Your task to perform on an android device: open sync settings in chrome Image 0: 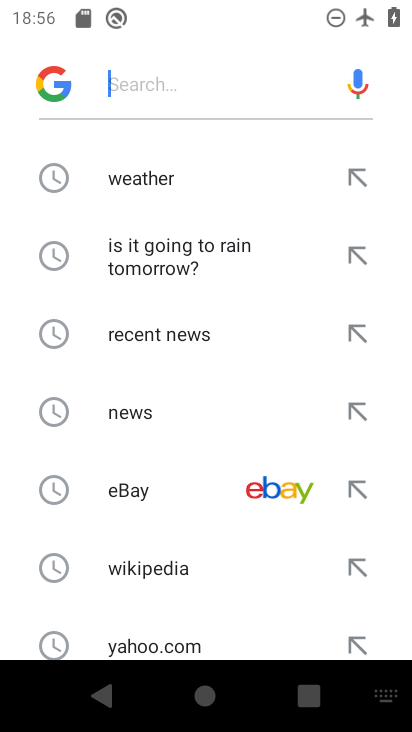
Step 0: press home button
Your task to perform on an android device: open sync settings in chrome Image 1: 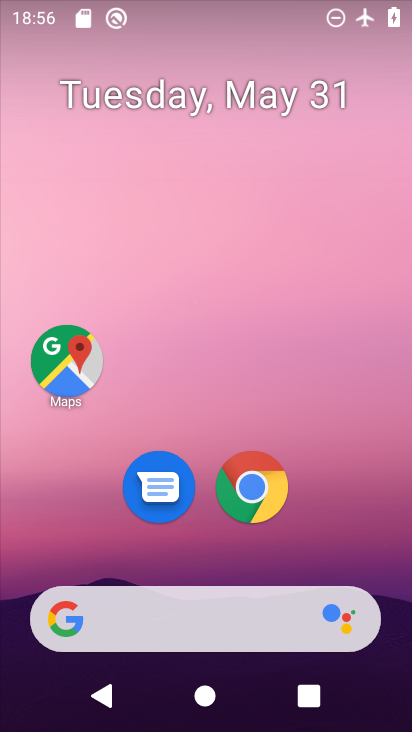
Step 1: click (256, 491)
Your task to perform on an android device: open sync settings in chrome Image 2: 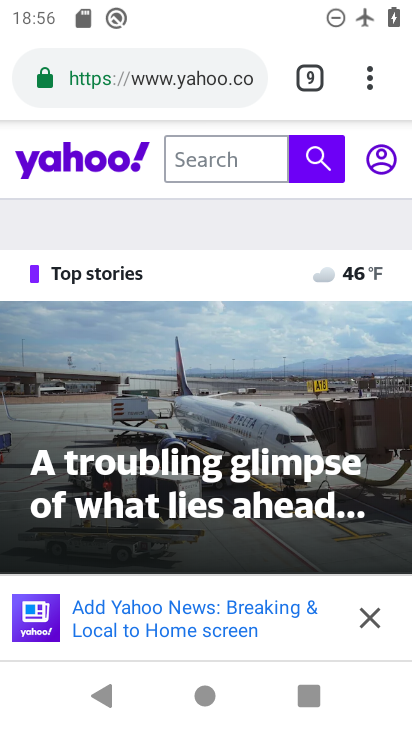
Step 2: click (366, 73)
Your task to perform on an android device: open sync settings in chrome Image 3: 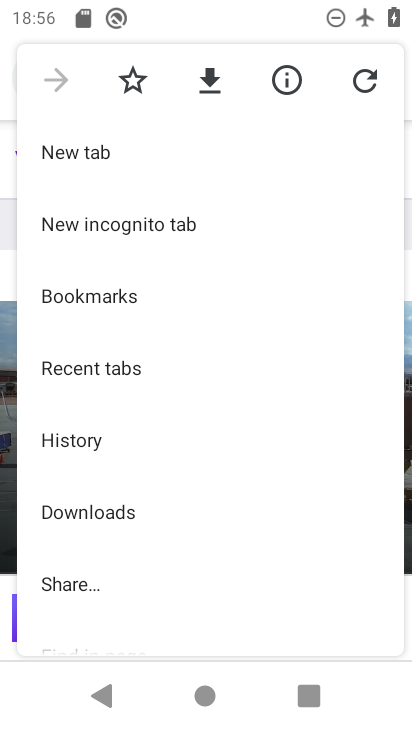
Step 3: drag from (224, 547) to (169, 236)
Your task to perform on an android device: open sync settings in chrome Image 4: 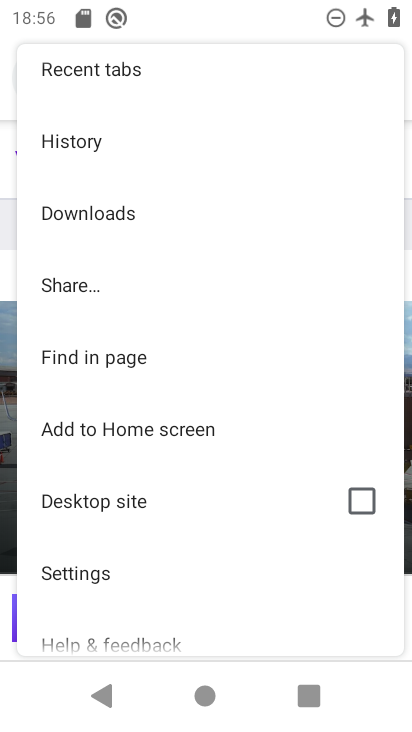
Step 4: click (88, 569)
Your task to perform on an android device: open sync settings in chrome Image 5: 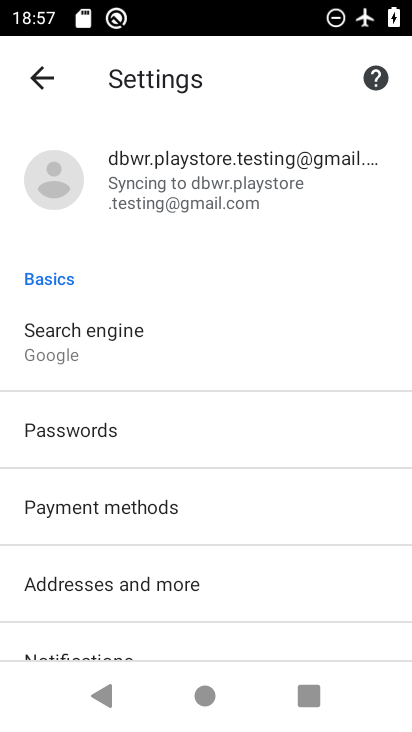
Step 5: click (209, 176)
Your task to perform on an android device: open sync settings in chrome Image 6: 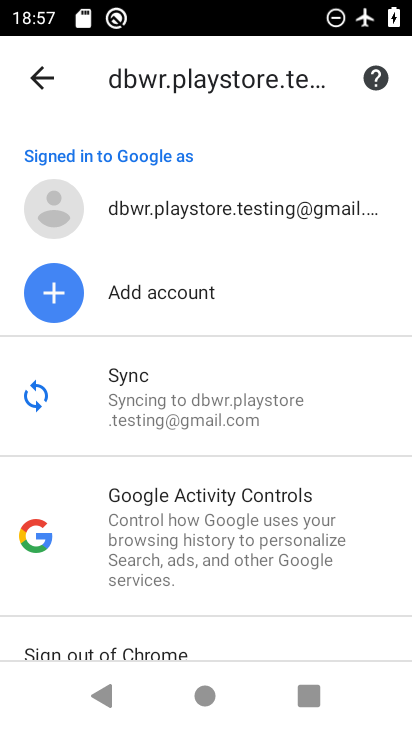
Step 6: click (145, 384)
Your task to perform on an android device: open sync settings in chrome Image 7: 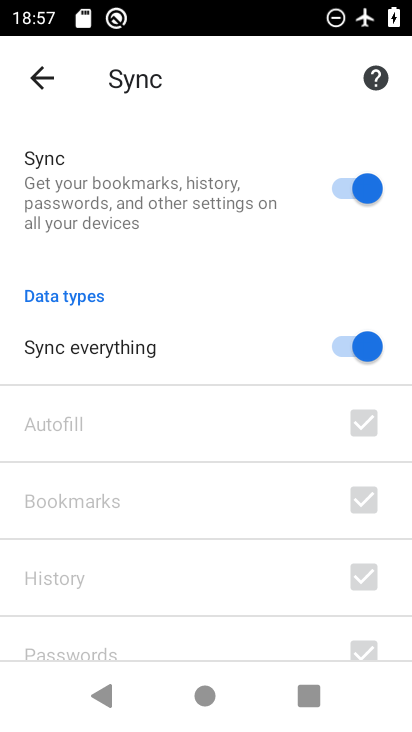
Step 7: task complete